Your task to perform on an android device: change keyboard looks Image 0: 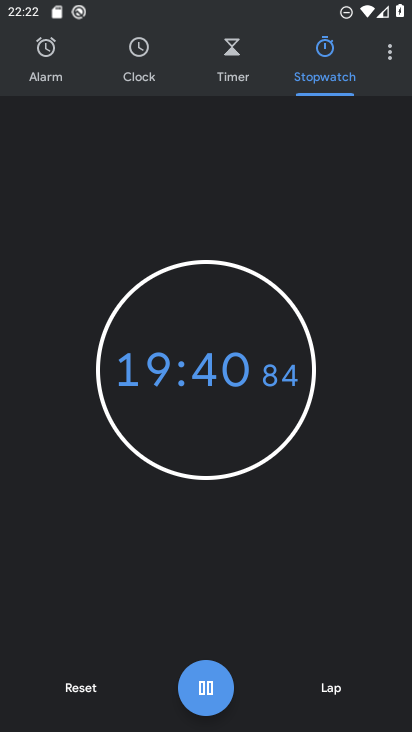
Step 0: press home button
Your task to perform on an android device: change keyboard looks Image 1: 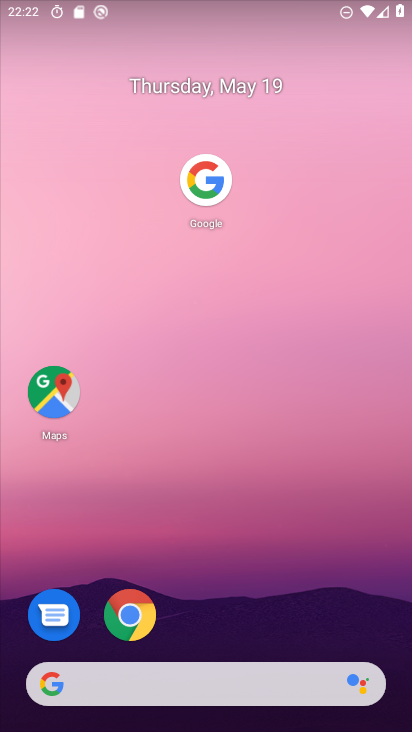
Step 1: drag from (220, 471) to (282, 1)
Your task to perform on an android device: change keyboard looks Image 2: 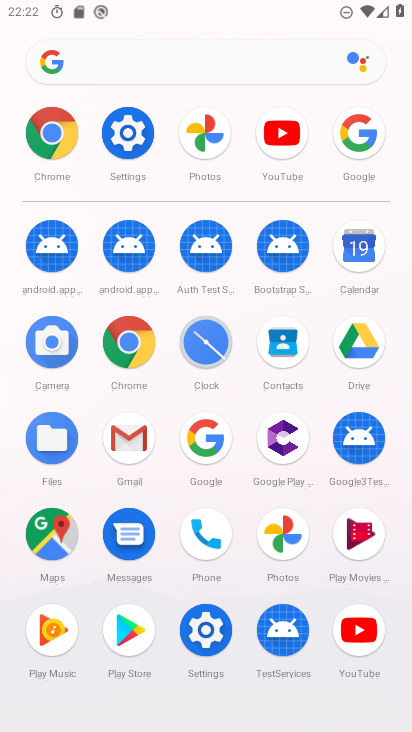
Step 2: click (130, 135)
Your task to perform on an android device: change keyboard looks Image 3: 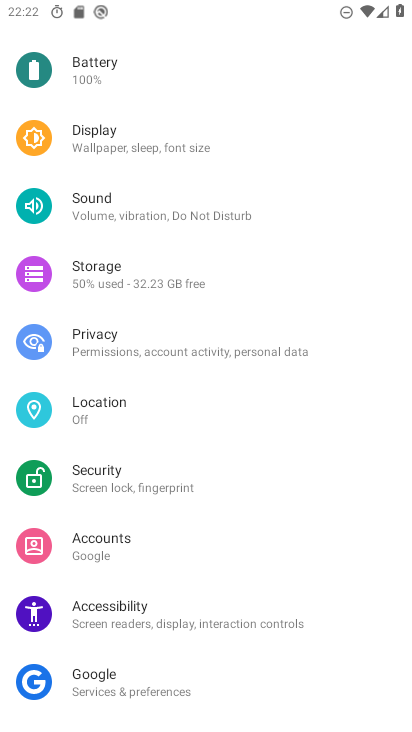
Step 3: drag from (242, 520) to (243, 167)
Your task to perform on an android device: change keyboard looks Image 4: 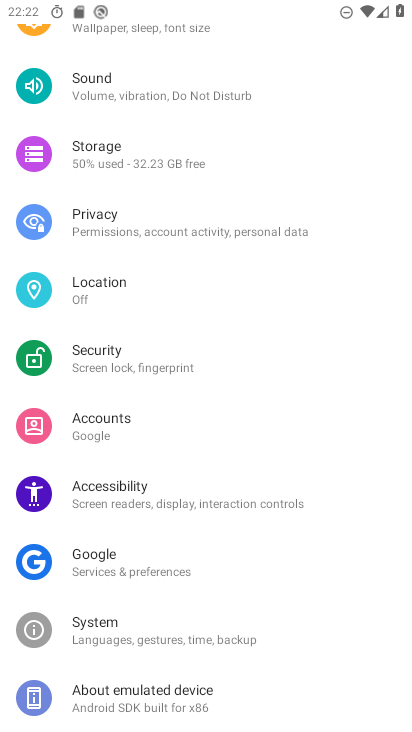
Step 4: click (128, 626)
Your task to perform on an android device: change keyboard looks Image 5: 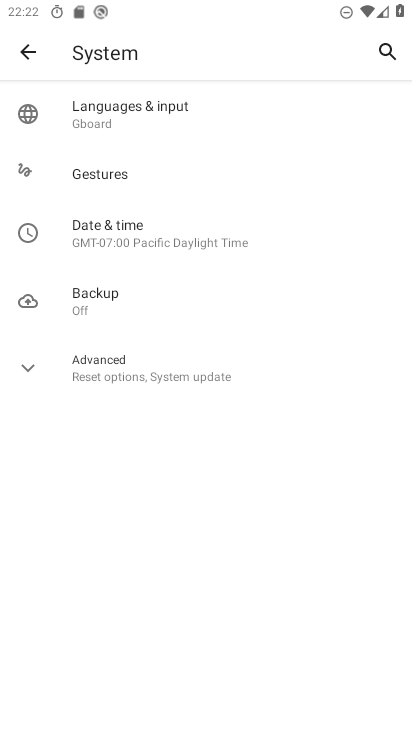
Step 5: click (121, 111)
Your task to perform on an android device: change keyboard looks Image 6: 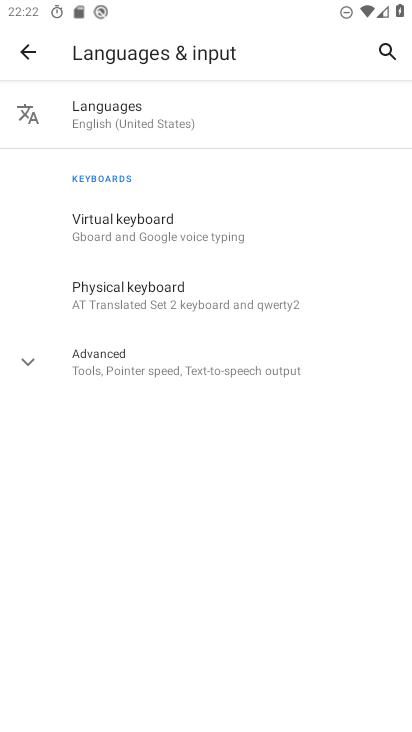
Step 6: click (147, 222)
Your task to perform on an android device: change keyboard looks Image 7: 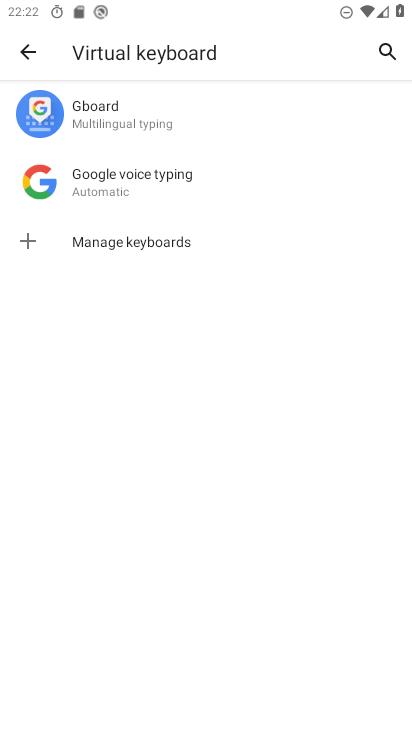
Step 7: click (122, 112)
Your task to perform on an android device: change keyboard looks Image 8: 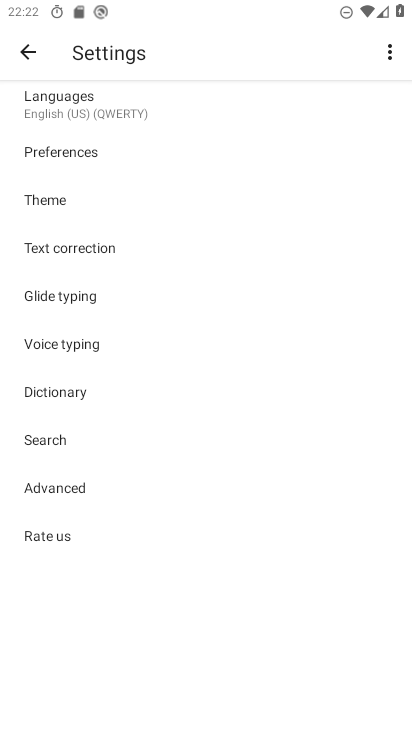
Step 8: click (67, 198)
Your task to perform on an android device: change keyboard looks Image 9: 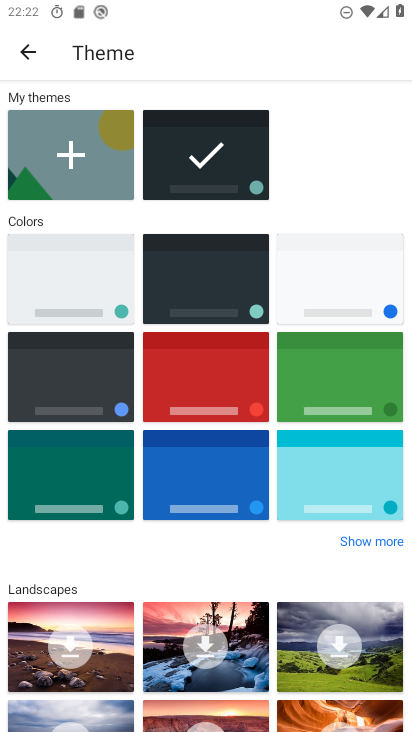
Step 9: click (232, 276)
Your task to perform on an android device: change keyboard looks Image 10: 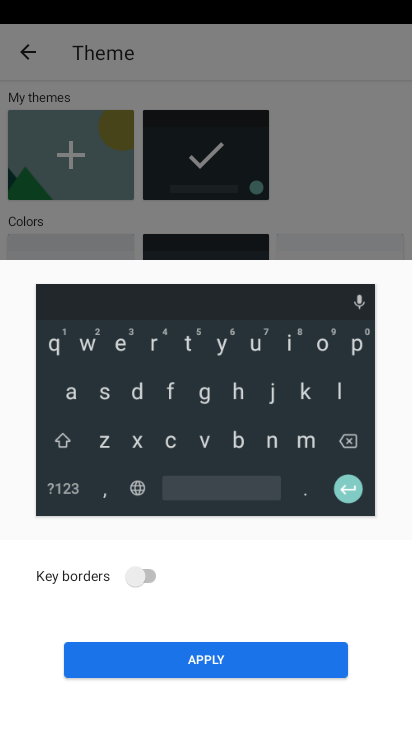
Step 10: click (226, 663)
Your task to perform on an android device: change keyboard looks Image 11: 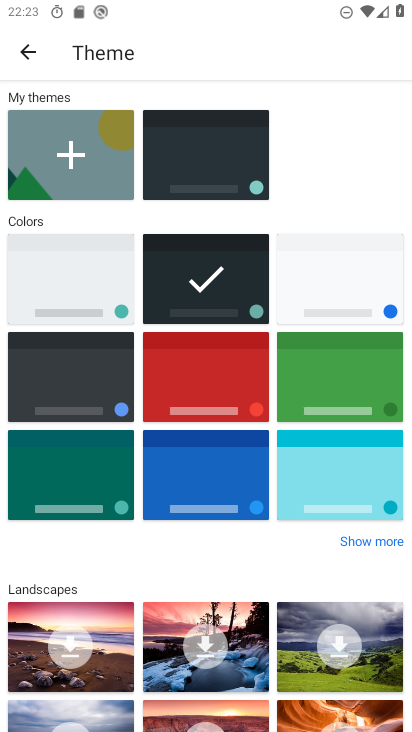
Step 11: task complete